Your task to perform on an android device: empty trash in google photos Image 0: 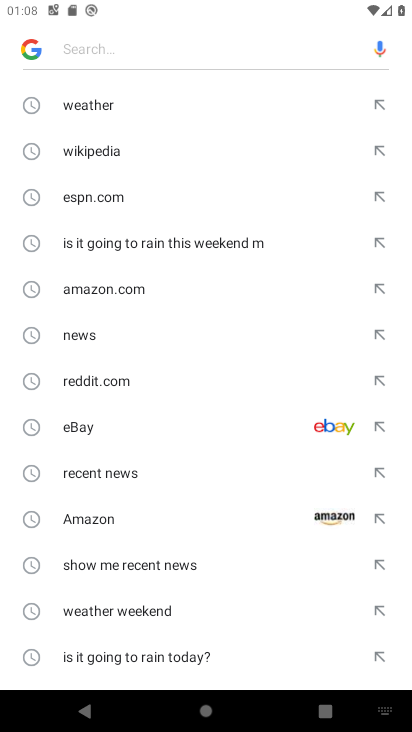
Step 0: press home button
Your task to perform on an android device: empty trash in google photos Image 1: 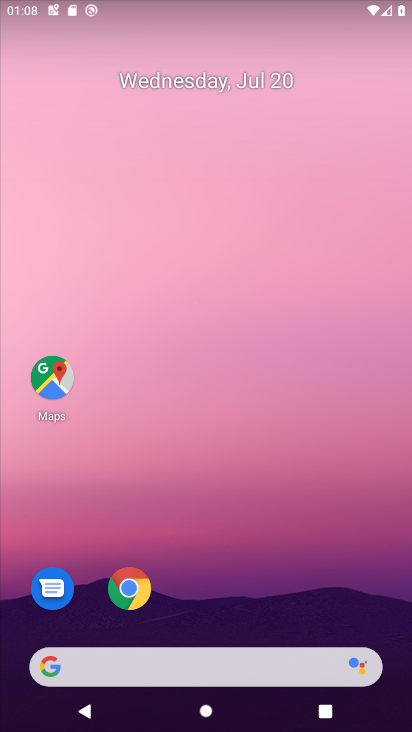
Step 1: drag from (265, 611) to (270, 245)
Your task to perform on an android device: empty trash in google photos Image 2: 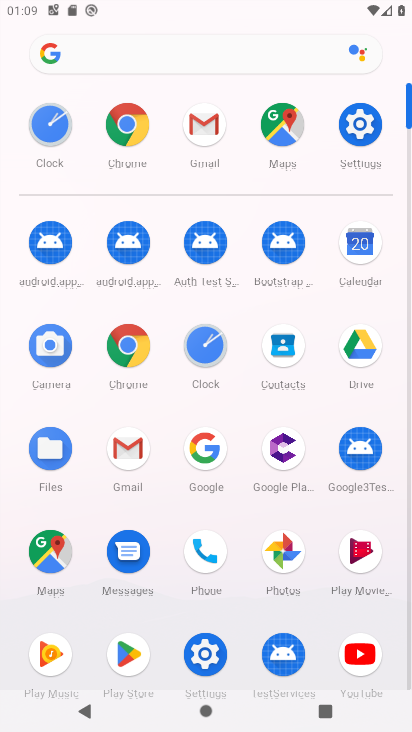
Step 2: click (276, 552)
Your task to perform on an android device: empty trash in google photos Image 3: 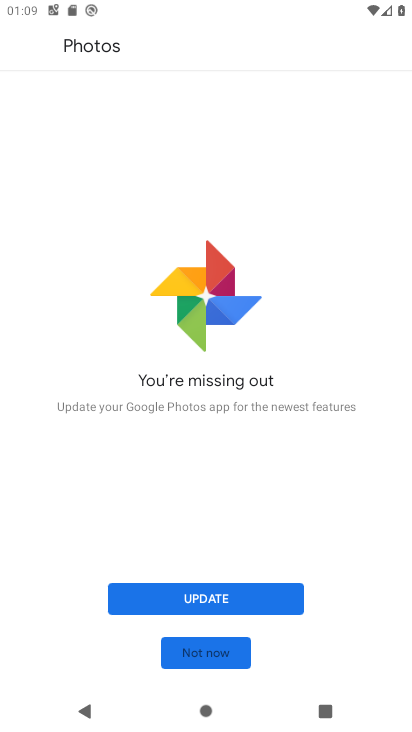
Step 3: click (219, 656)
Your task to perform on an android device: empty trash in google photos Image 4: 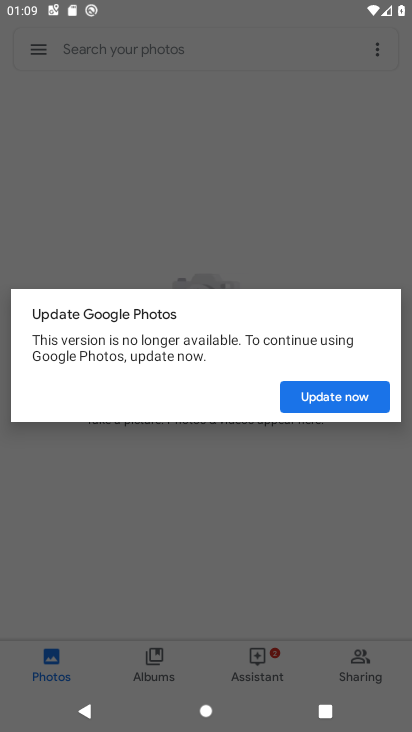
Step 4: click (338, 392)
Your task to perform on an android device: empty trash in google photos Image 5: 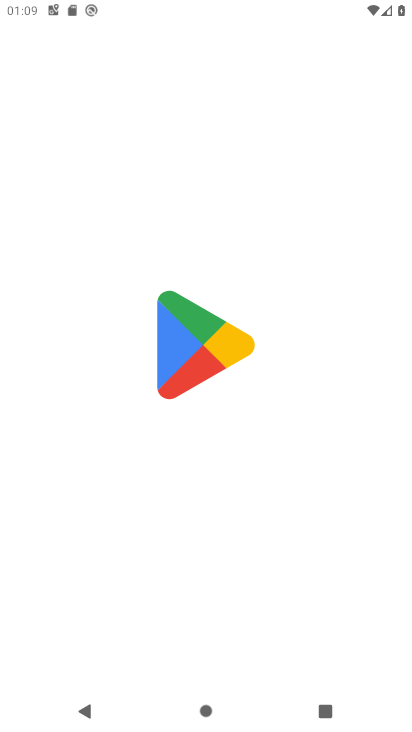
Step 5: press back button
Your task to perform on an android device: empty trash in google photos Image 6: 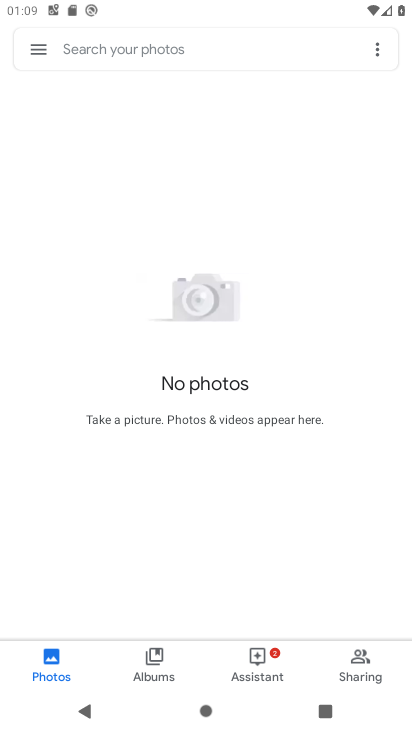
Step 6: click (37, 58)
Your task to perform on an android device: empty trash in google photos Image 7: 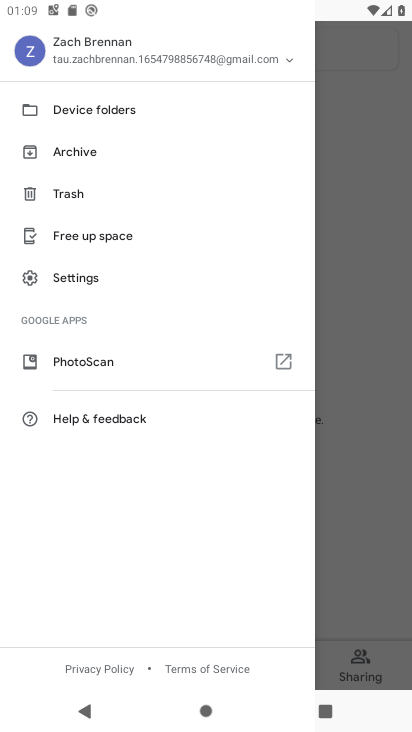
Step 7: click (99, 271)
Your task to perform on an android device: empty trash in google photos Image 8: 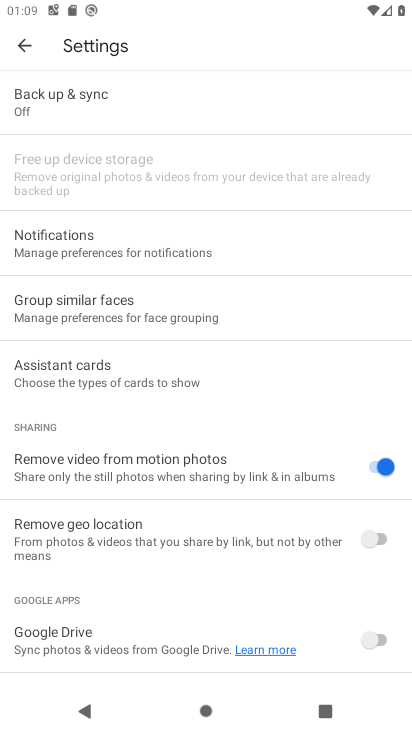
Step 8: click (19, 42)
Your task to perform on an android device: empty trash in google photos Image 9: 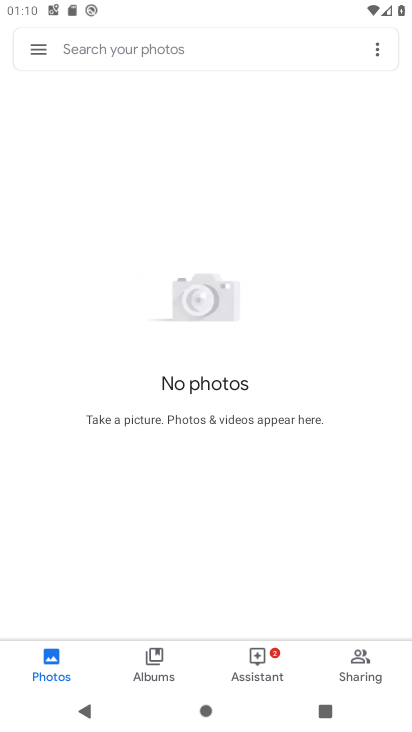
Step 9: click (42, 51)
Your task to perform on an android device: empty trash in google photos Image 10: 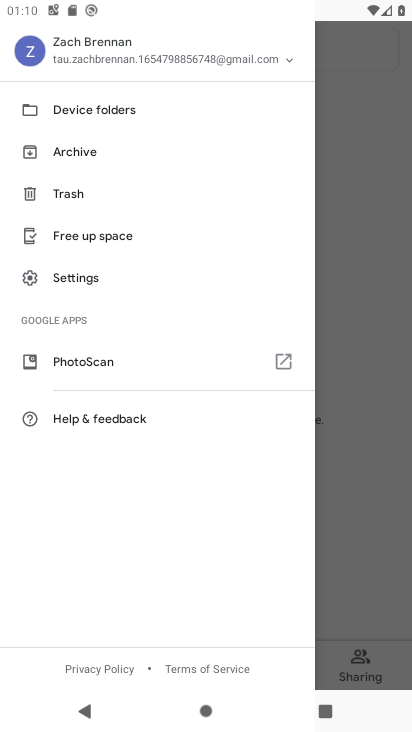
Step 10: click (79, 196)
Your task to perform on an android device: empty trash in google photos Image 11: 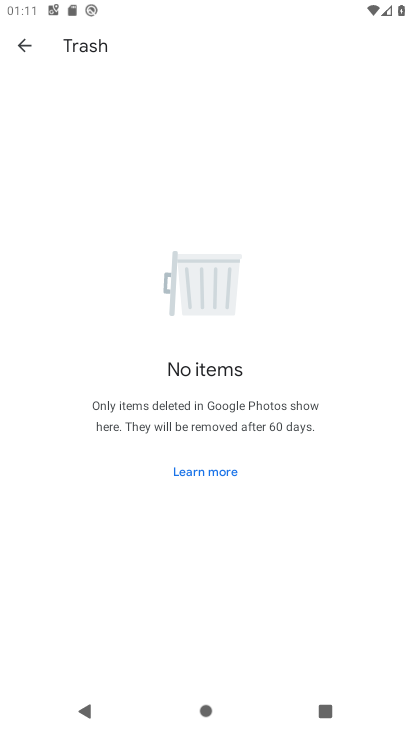
Step 11: task complete